Your task to perform on an android device: Check the weather Image 0: 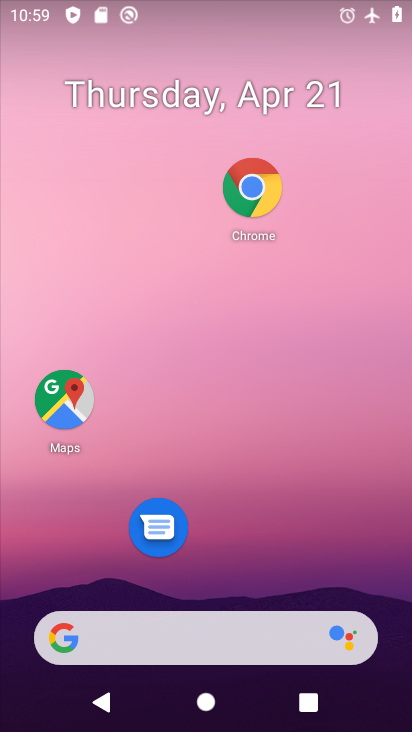
Step 0: drag from (245, 342) to (305, 4)
Your task to perform on an android device: Check the weather Image 1: 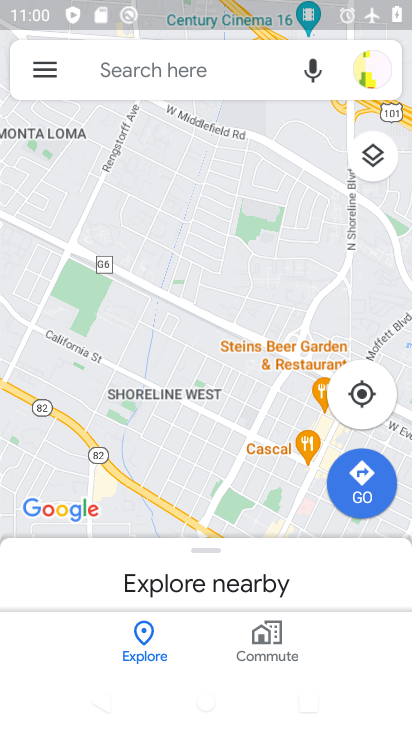
Step 1: press home button
Your task to perform on an android device: Check the weather Image 2: 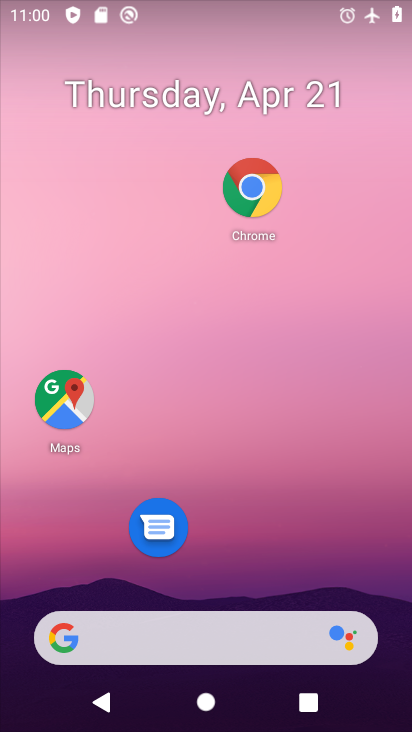
Step 2: drag from (241, 655) to (262, 222)
Your task to perform on an android device: Check the weather Image 3: 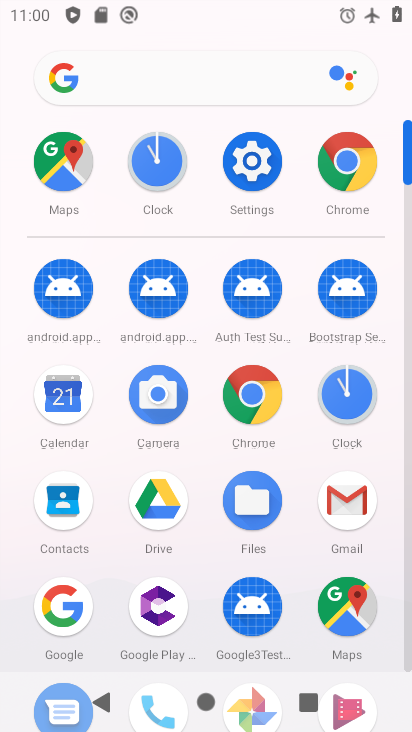
Step 3: click (409, 559)
Your task to perform on an android device: Check the weather Image 4: 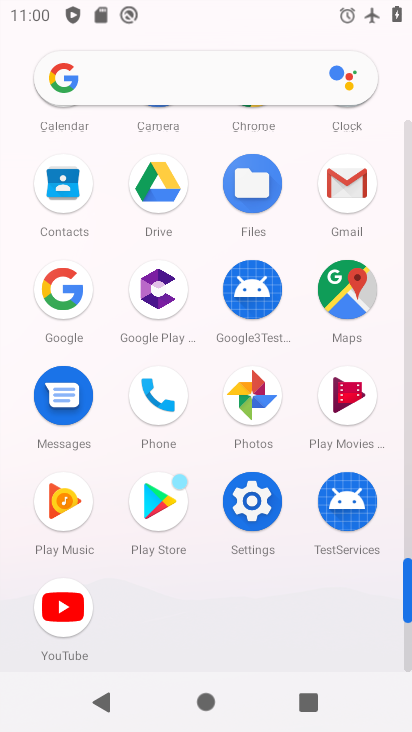
Step 4: click (62, 303)
Your task to perform on an android device: Check the weather Image 5: 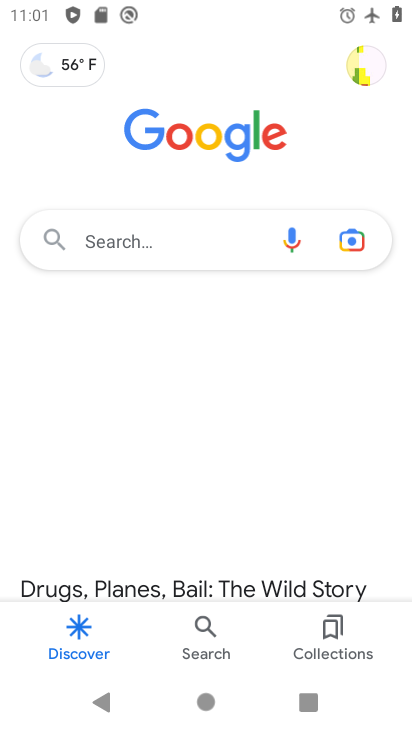
Step 5: click (133, 246)
Your task to perform on an android device: Check the weather Image 6: 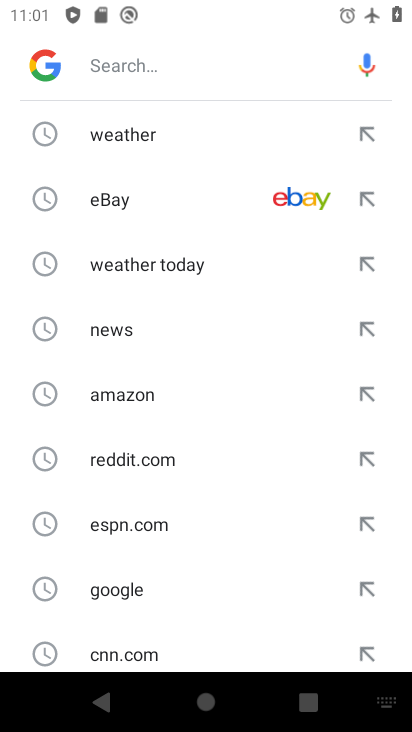
Step 6: click (186, 158)
Your task to perform on an android device: Check the weather Image 7: 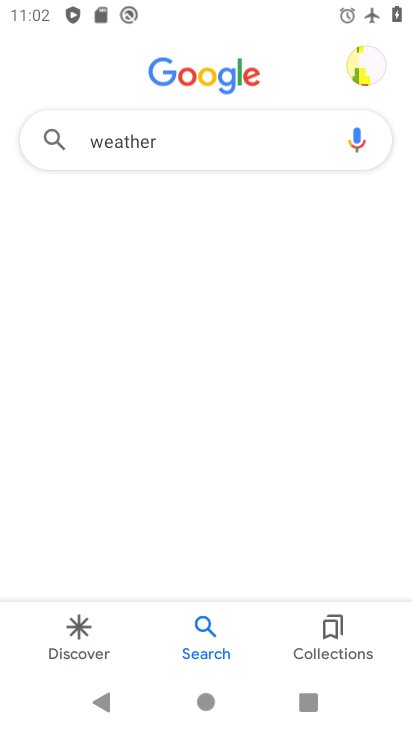
Step 7: task complete